Your task to perform on an android device: Go to Android settings Image 0: 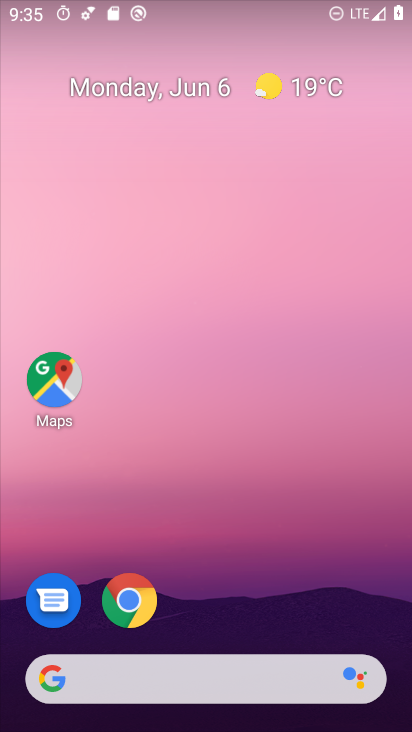
Step 0: drag from (293, 566) to (208, 2)
Your task to perform on an android device: Go to Android settings Image 1: 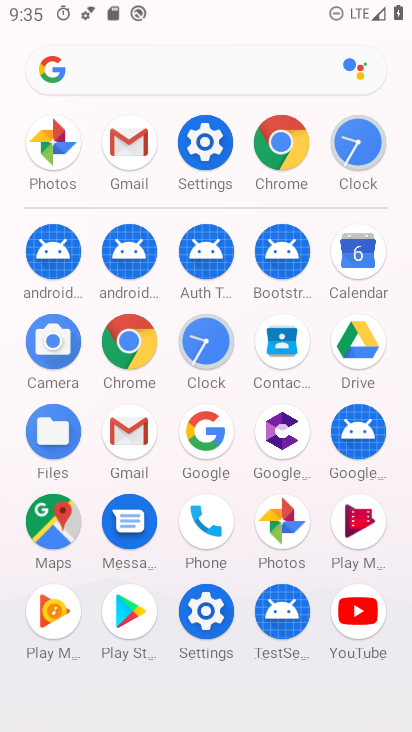
Step 1: click (206, 142)
Your task to perform on an android device: Go to Android settings Image 2: 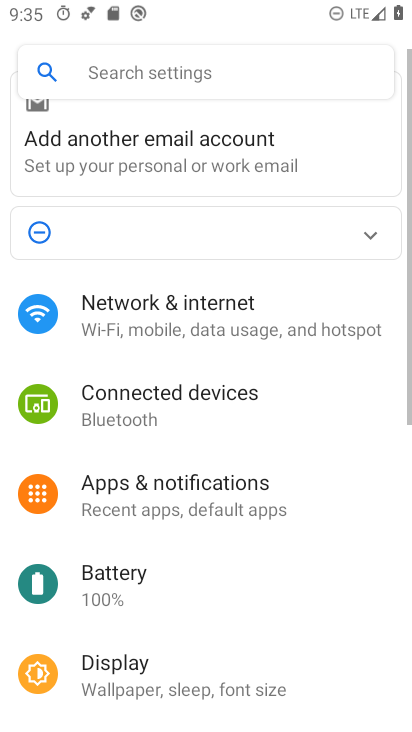
Step 2: drag from (230, 446) to (266, 36)
Your task to perform on an android device: Go to Android settings Image 3: 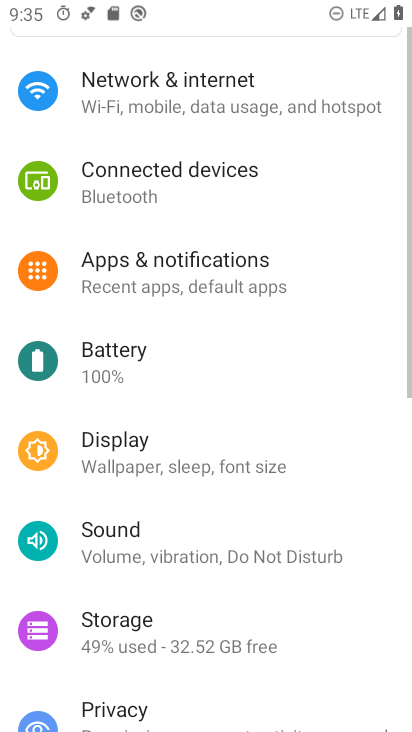
Step 3: drag from (241, 505) to (231, 23)
Your task to perform on an android device: Go to Android settings Image 4: 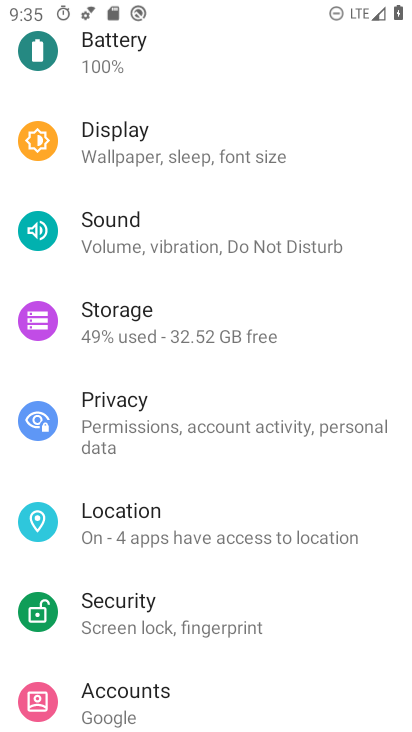
Step 4: drag from (220, 526) to (148, 45)
Your task to perform on an android device: Go to Android settings Image 5: 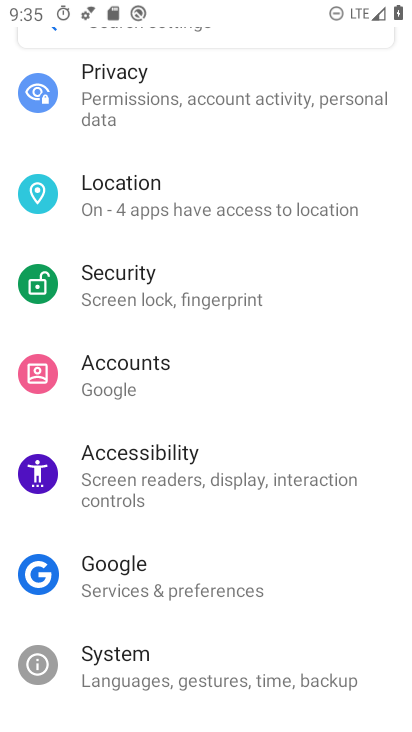
Step 5: click (214, 719)
Your task to perform on an android device: Go to Android settings Image 6: 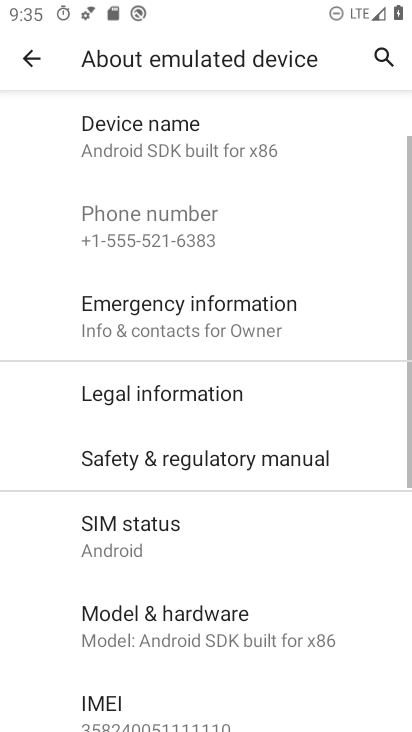
Step 6: drag from (223, 582) to (199, 219)
Your task to perform on an android device: Go to Android settings Image 7: 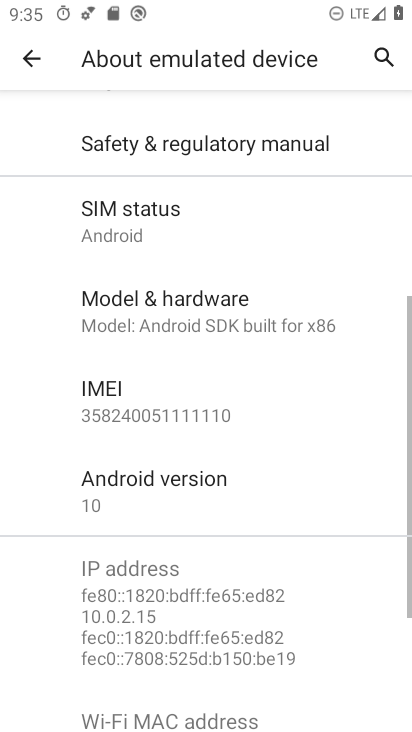
Step 7: click (184, 507)
Your task to perform on an android device: Go to Android settings Image 8: 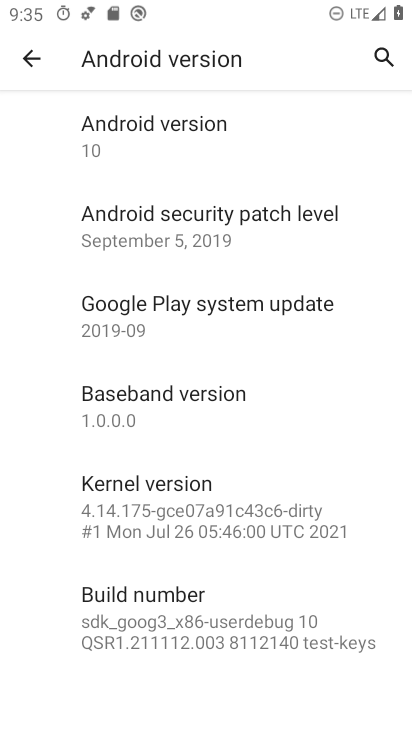
Step 8: task complete